Your task to perform on an android device: Find coffee shops on Maps Image 0: 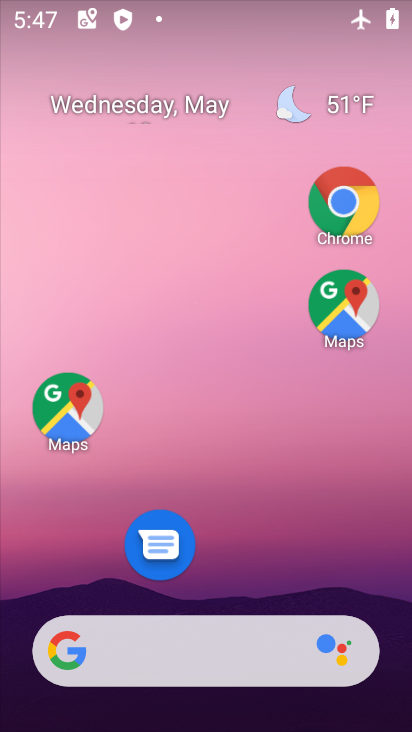
Step 0: drag from (272, 547) to (183, 134)
Your task to perform on an android device: Find coffee shops on Maps Image 1: 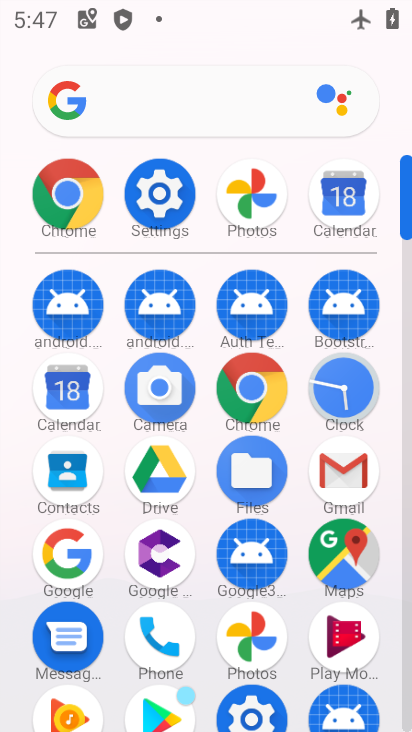
Step 1: click (357, 548)
Your task to perform on an android device: Find coffee shops on Maps Image 2: 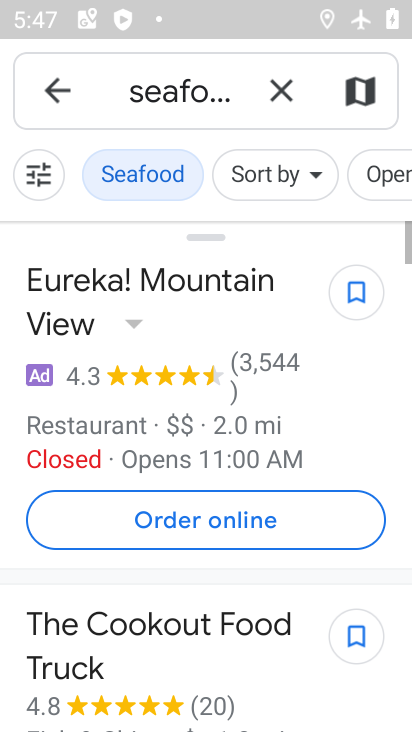
Step 2: click (276, 90)
Your task to perform on an android device: Find coffee shops on Maps Image 3: 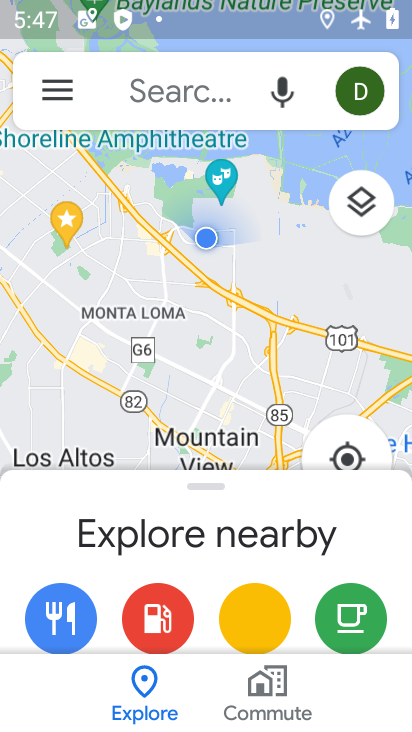
Step 3: click (196, 120)
Your task to perform on an android device: Find coffee shops on Maps Image 4: 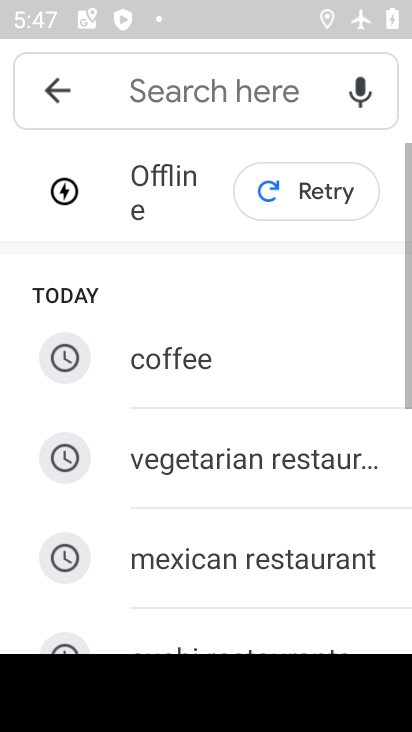
Step 4: drag from (213, 530) to (204, 263)
Your task to perform on an android device: Find coffee shops on Maps Image 5: 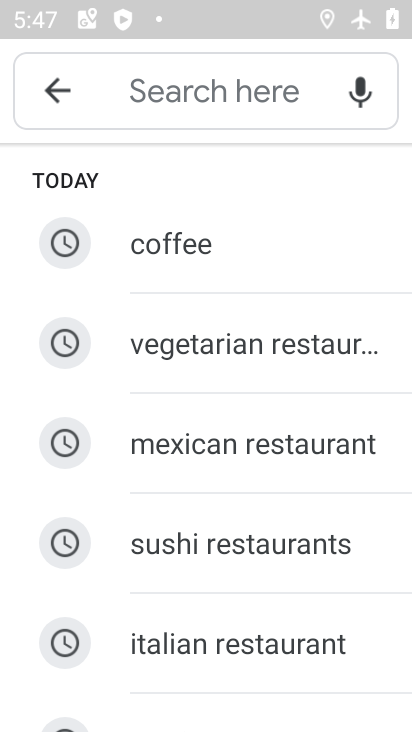
Step 5: drag from (225, 630) to (210, 268)
Your task to perform on an android device: Find coffee shops on Maps Image 6: 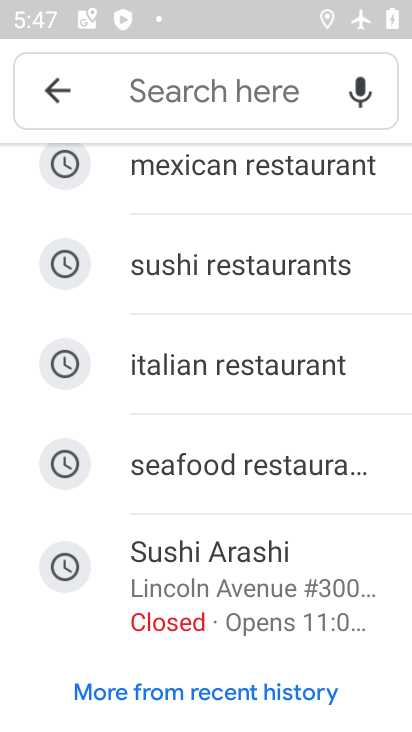
Step 6: drag from (232, 502) to (234, 265)
Your task to perform on an android device: Find coffee shops on Maps Image 7: 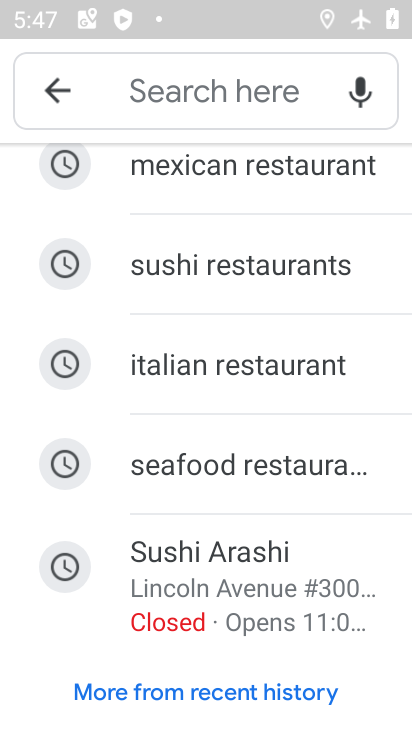
Step 7: click (207, 100)
Your task to perform on an android device: Find coffee shops on Maps Image 8: 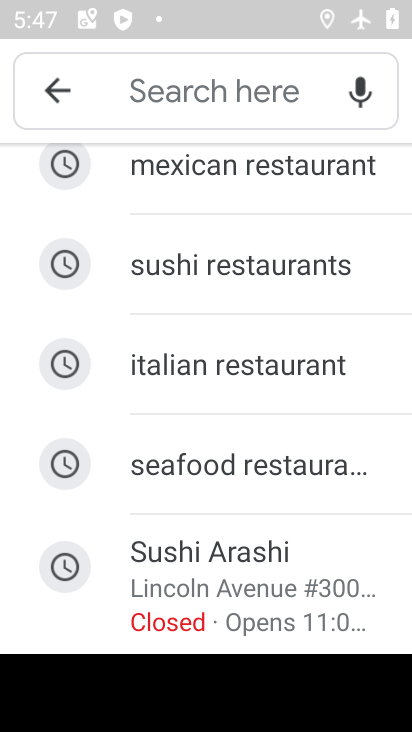
Step 8: type "coffee shops"
Your task to perform on an android device: Find coffee shops on Maps Image 9: 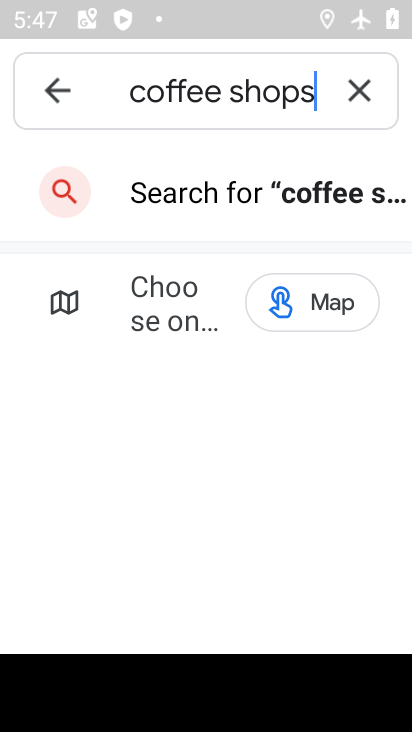
Step 9: press back button
Your task to perform on an android device: Find coffee shops on Maps Image 10: 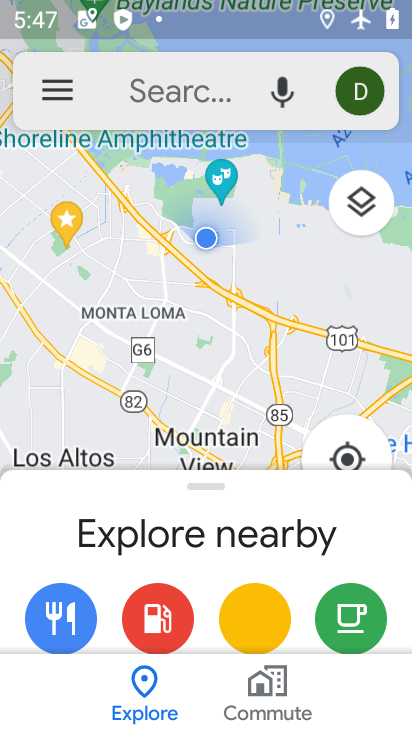
Step 10: press back button
Your task to perform on an android device: Find coffee shops on Maps Image 11: 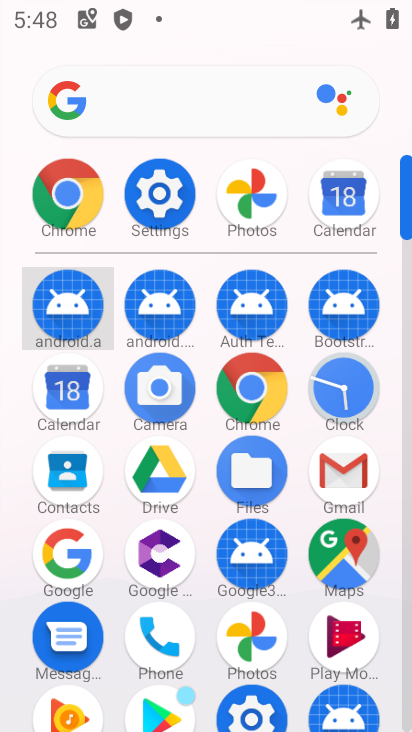
Step 11: click (149, 202)
Your task to perform on an android device: Find coffee shops on Maps Image 12: 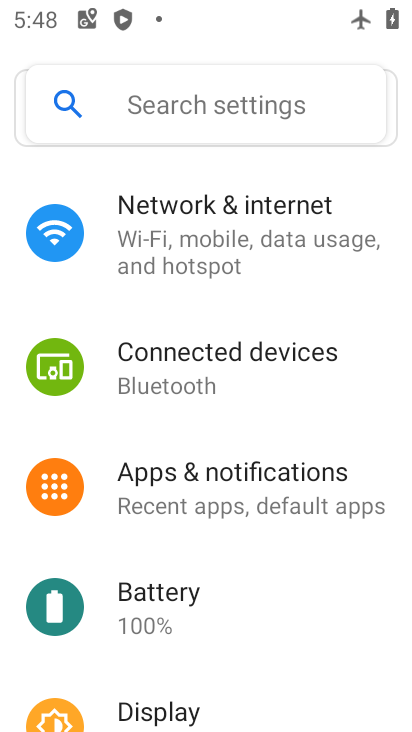
Step 12: click (268, 243)
Your task to perform on an android device: Find coffee shops on Maps Image 13: 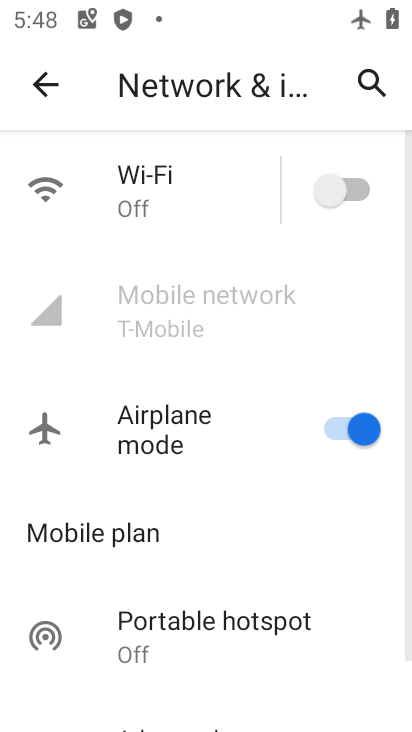
Step 13: click (331, 425)
Your task to perform on an android device: Find coffee shops on Maps Image 14: 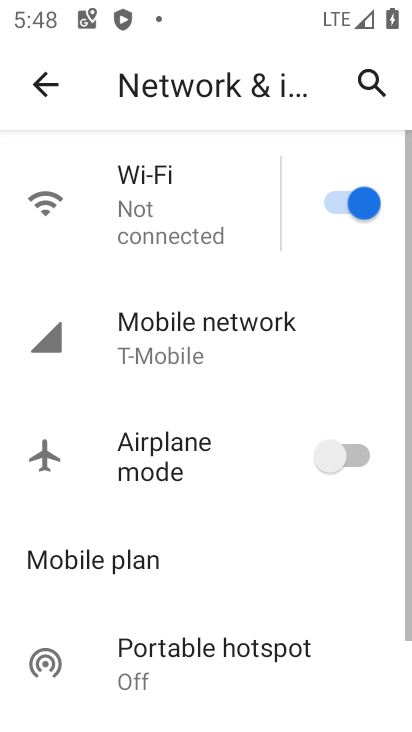
Step 14: press back button
Your task to perform on an android device: Find coffee shops on Maps Image 15: 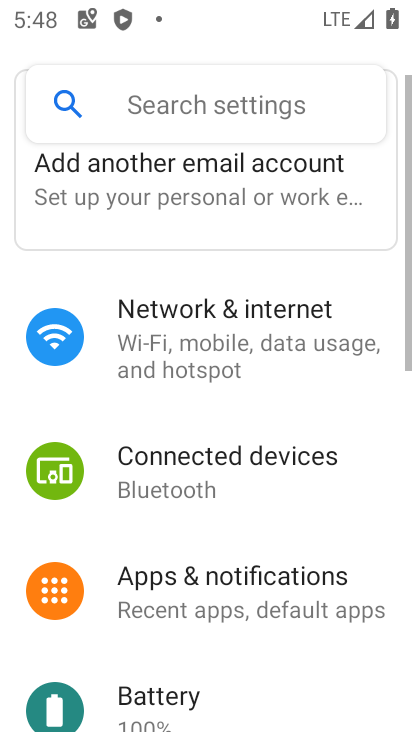
Step 15: press back button
Your task to perform on an android device: Find coffee shops on Maps Image 16: 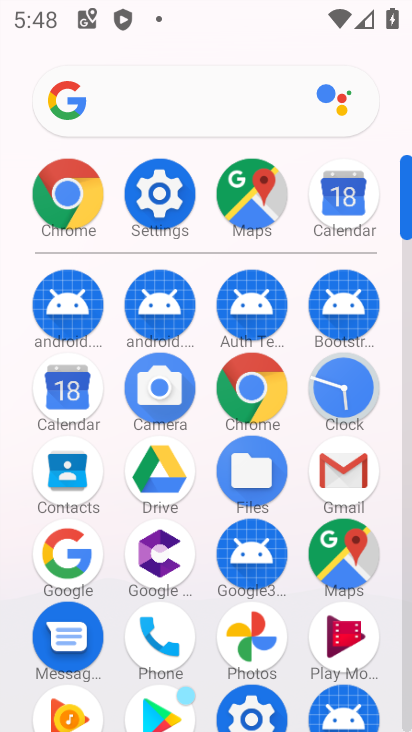
Step 16: click (260, 201)
Your task to perform on an android device: Find coffee shops on Maps Image 17: 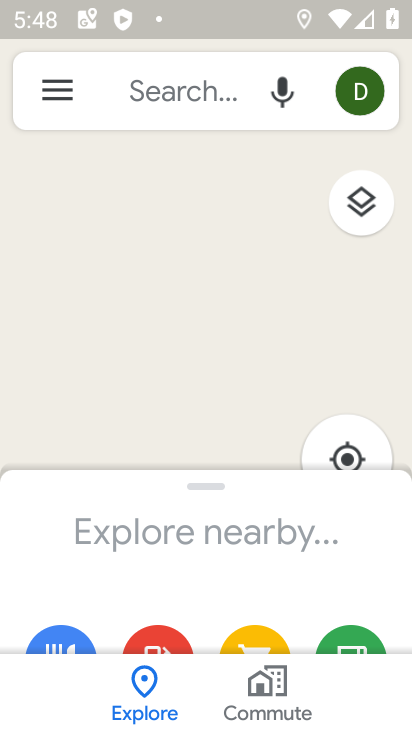
Step 17: click (175, 107)
Your task to perform on an android device: Find coffee shops on Maps Image 18: 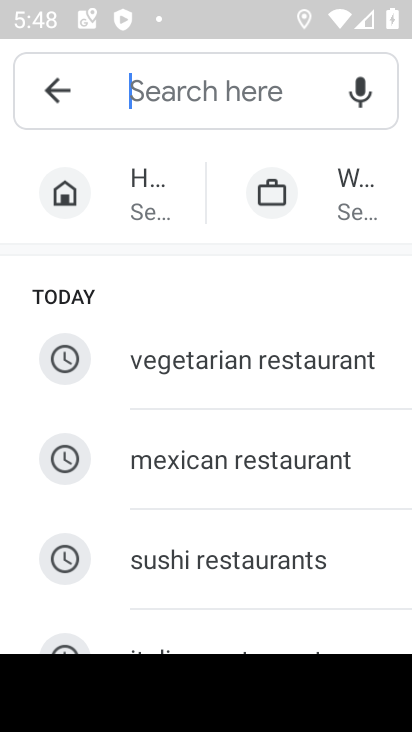
Step 18: drag from (288, 579) to (257, 220)
Your task to perform on an android device: Find coffee shops on Maps Image 19: 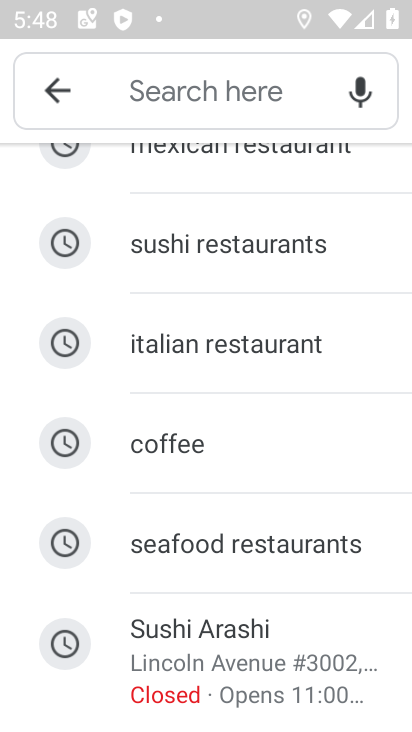
Step 19: click (183, 95)
Your task to perform on an android device: Find coffee shops on Maps Image 20: 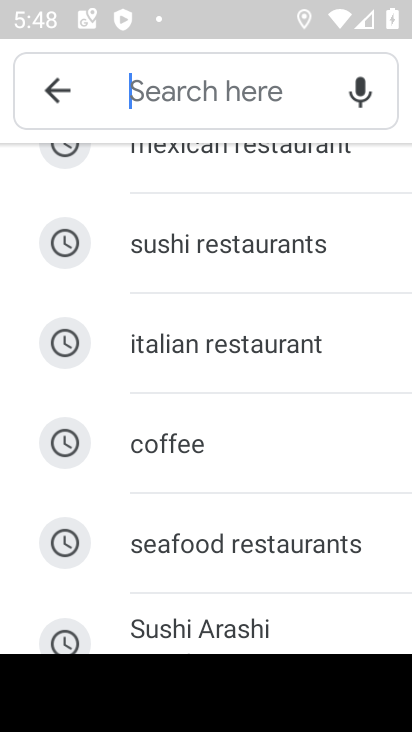
Step 20: type "coffee shops"
Your task to perform on an android device: Find coffee shops on Maps Image 21: 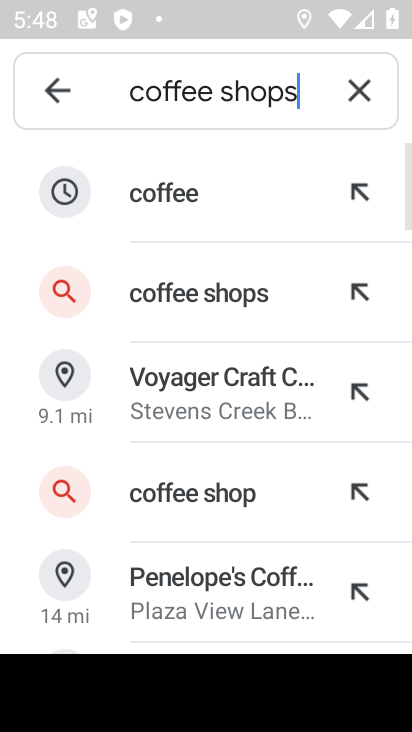
Step 21: click (246, 293)
Your task to perform on an android device: Find coffee shops on Maps Image 22: 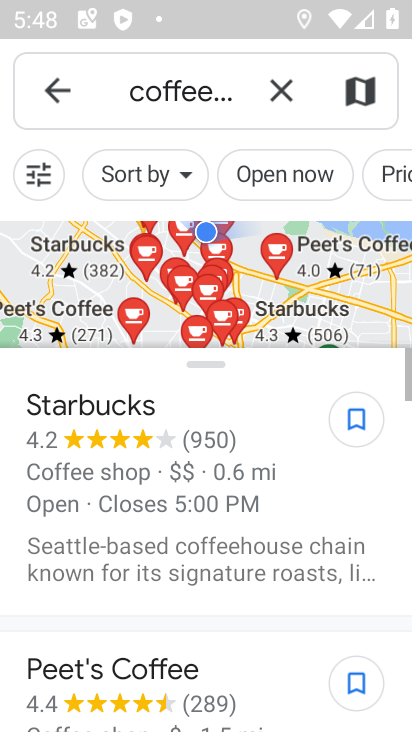
Step 22: task complete